Your task to perform on an android device: add a contact Image 0: 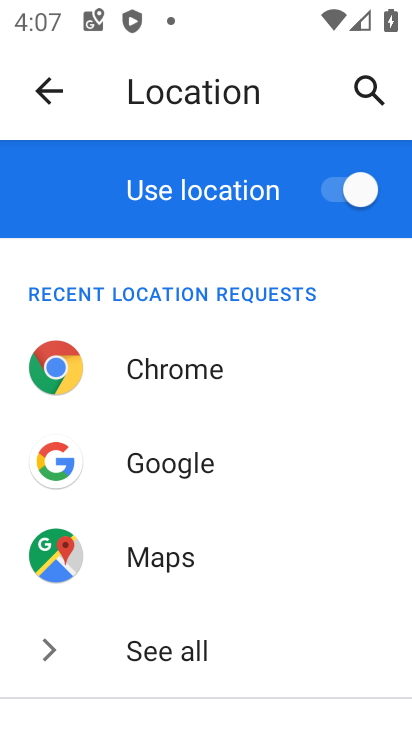
Step 0: press home button
Your task to perform on an android device: add a contact Image 1: 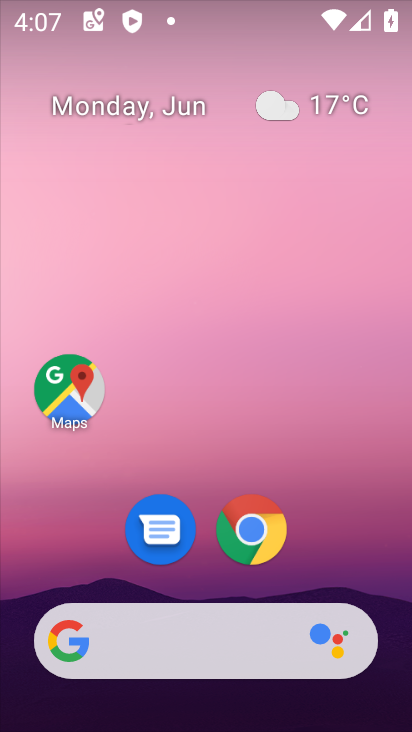
Step 1: drag from (311, 529) to (307, 76)
Your task to perform on an android device: add a contact Image 2: 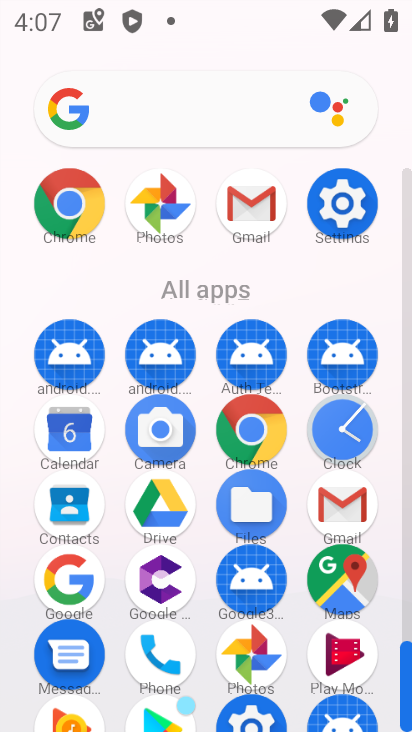
Step 2: click (69, 506)
Your task to perform on an android device: add a contact Image 3: 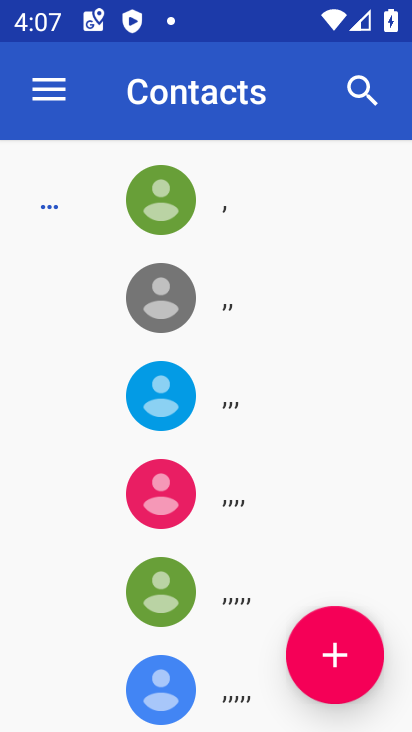
Step 3: click (334, 658)
Your task to perform on an android device: add a contact Image 4: 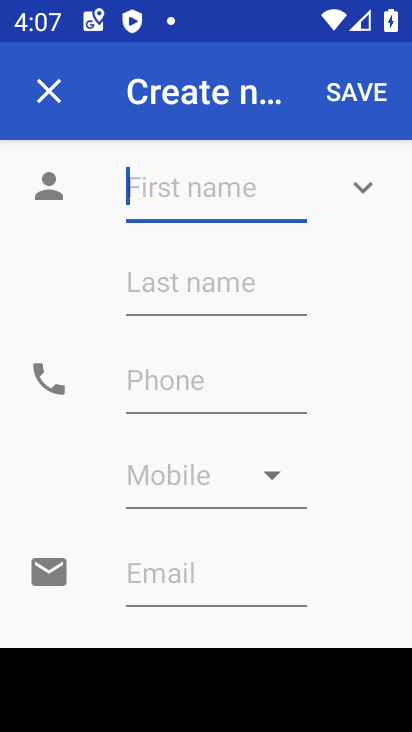
Step 4: type "R k"
Your task to perform on an android device: add a contact Image 5: 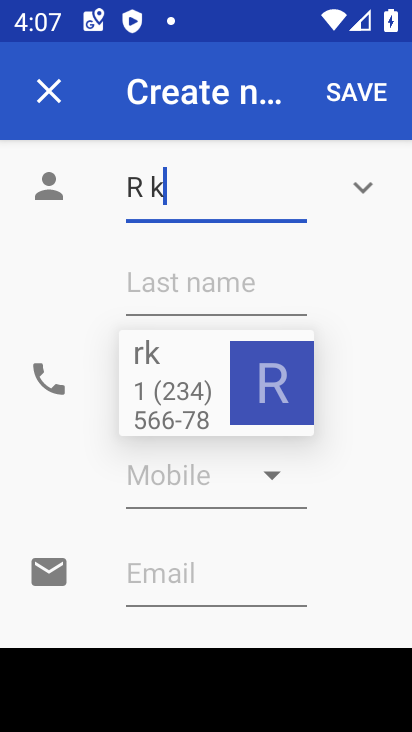
Step 5: click (233, 402)
Your task to perform on an android device: add a contact Image 6: 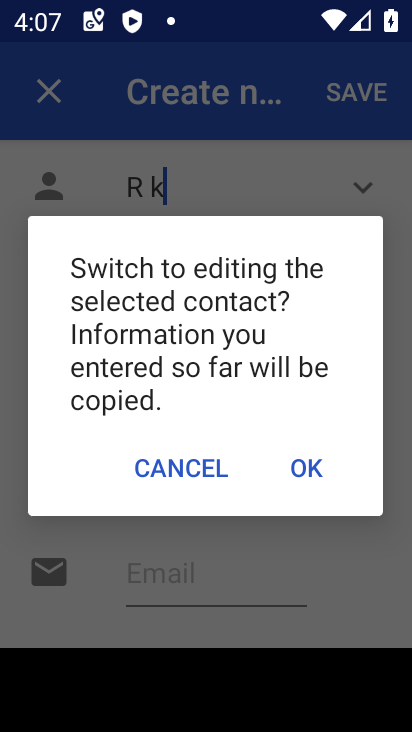
Step 6: click (320, 467)
Your task to perform on an android device: add a contact Image 7: 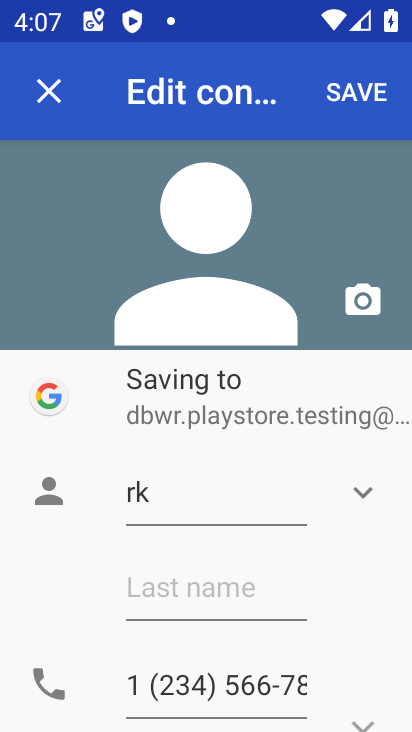
Step 7: click (379, 100)
Your task to perform on an android device: add a contact Image 8: 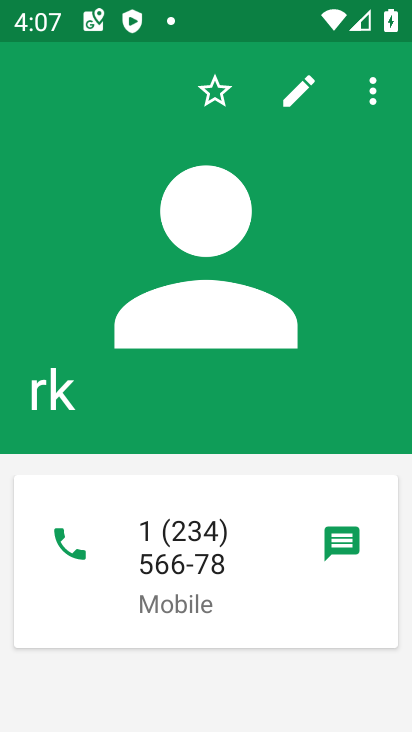
Step 8: task complete